Your task to perform on an android device: turn off smart reply in the gmail app Image 0: 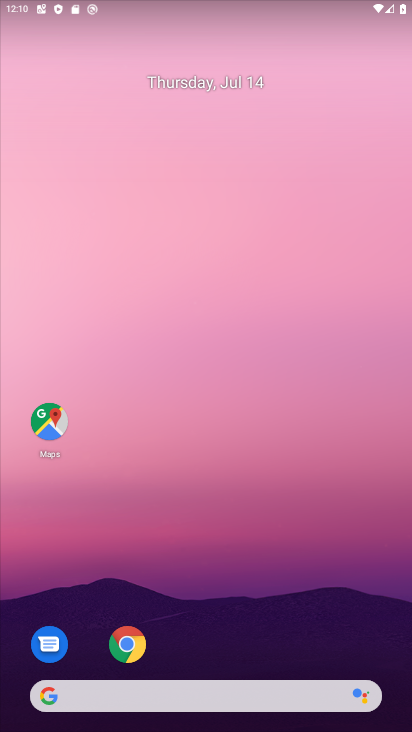
Step 0: drag from (347, 661) to (388, 250)
Your task to perform on an android device: turn off smart reply in the gmail app Image 1: 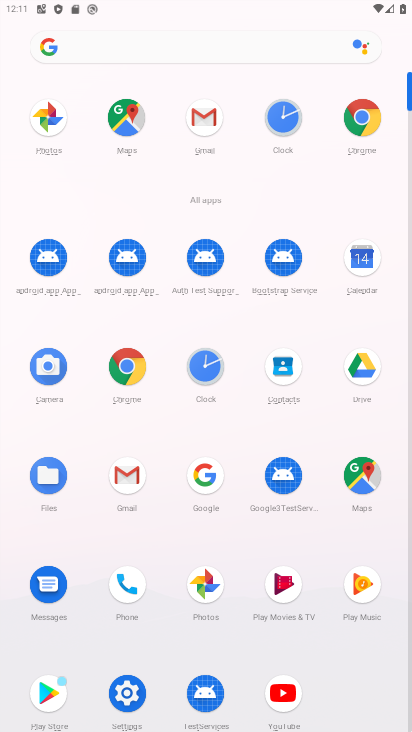
Step 1: click (124, 465)
Your task to perform on an android device: turn off smart reply in the gmail app Image 2: 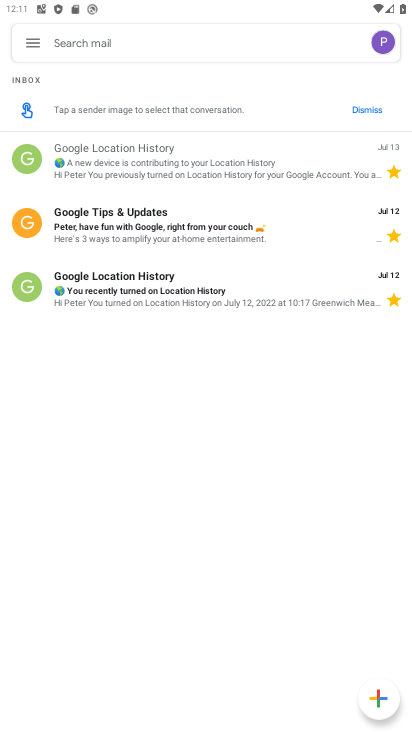
Step 2: click (38, 43)
Your task to perform on an android device: turn off smart reply in the gmail app Image 3: 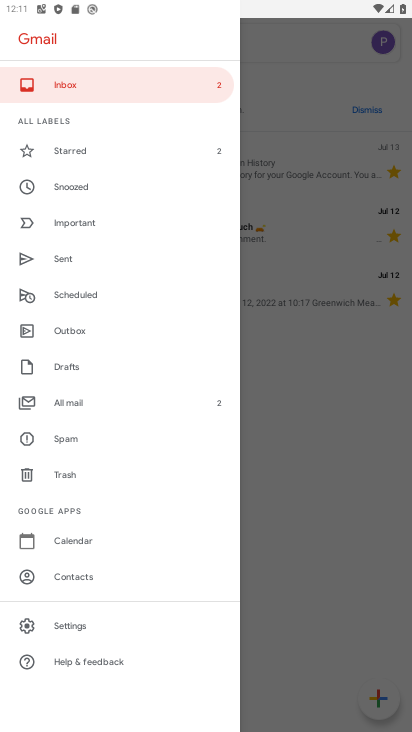
Step 3: click (95, 634)
Your task to perform on an android device: turn off smart reply in the gmail app Image 4: 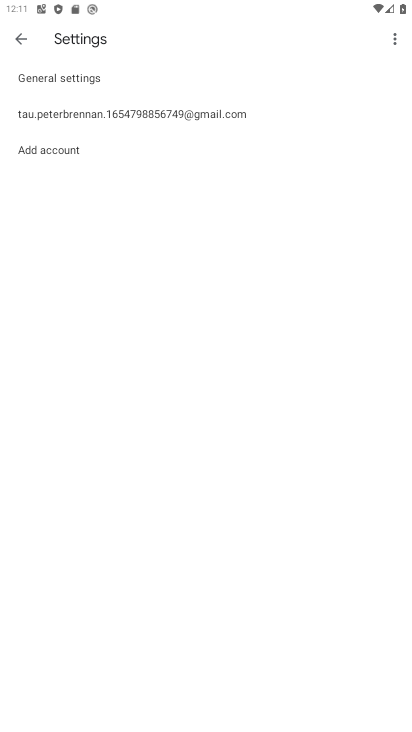
Step 4: click (136, 100)
Your task to perform on an android device: turn off smart reply in the gmail app Image 5: 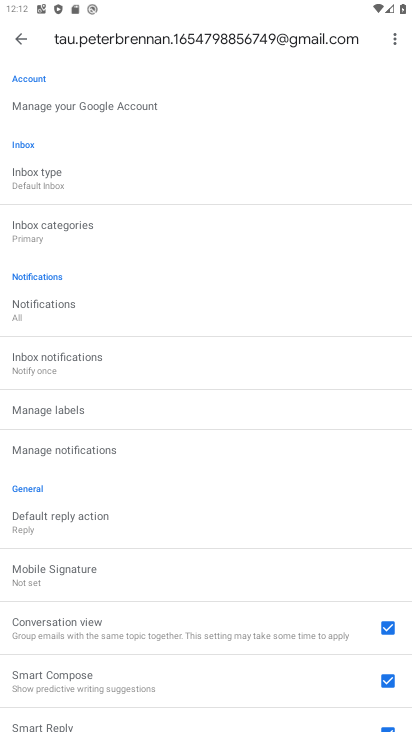
Step 5: task complete